Your task to perform on an android device: Go to Reddit.com Image 0: 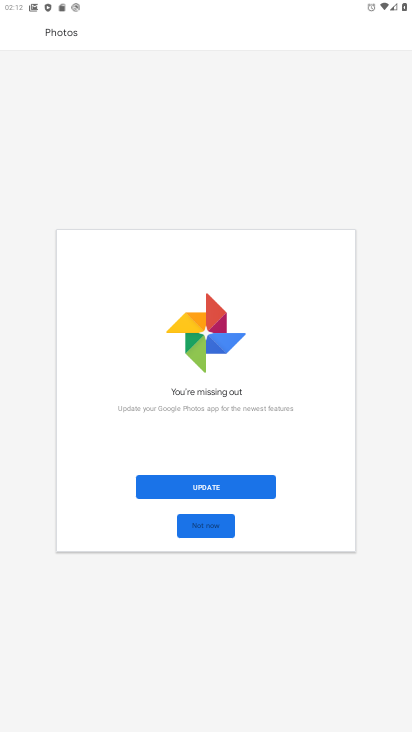
Step 0: press home button
Your task to perform on an android device: Go to Reddit.com Image 1: 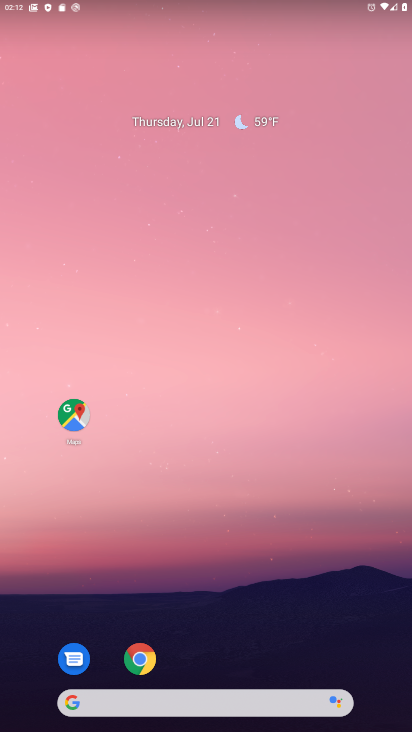
Step 1: drag from (222, 602) to (144, 103)
Your task to perform on an android device: Go to Reddit.com Image 2: 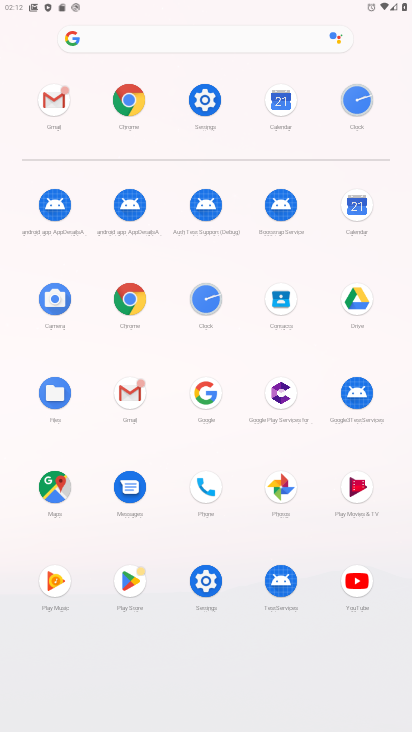
Step 2: click (129, 298)
Your task to perform on an android device: Go to Reddit.com Image 3: 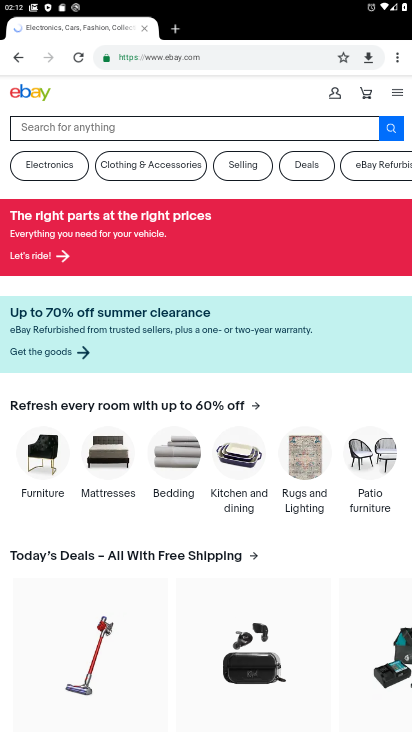
Step 3: click (239, 49)
Your task to perform on an android device: Go to Reddit.com Image 4: 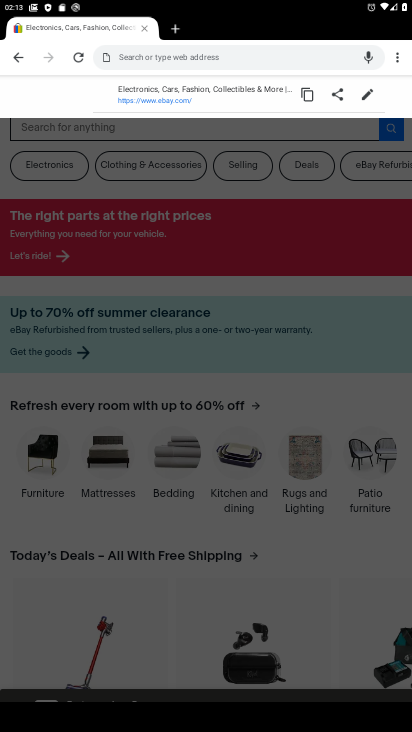
Step 4: type "reddit.com"
Your task to perform on an android device: Go to Reddit.com Image 5: 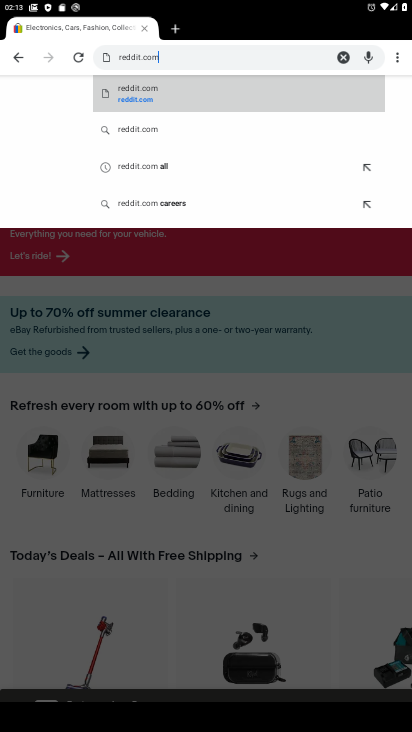
Step 5: click (161, 101)
Your task to perform on an android device: Go to Reddit.com Image 6: 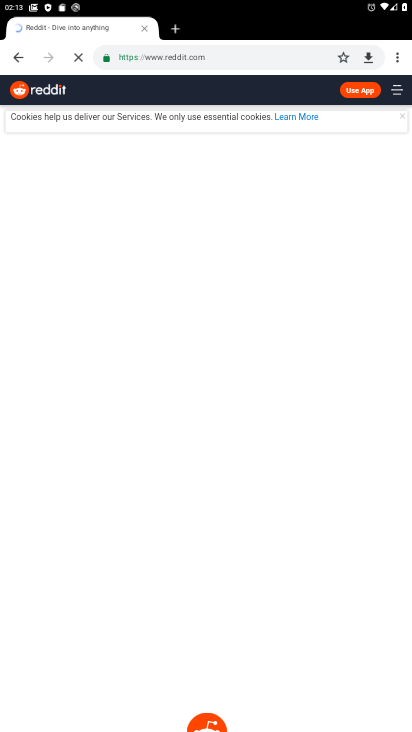
Step 6: task complete